Your task to perform on an android device: Open Android settings Image 0: 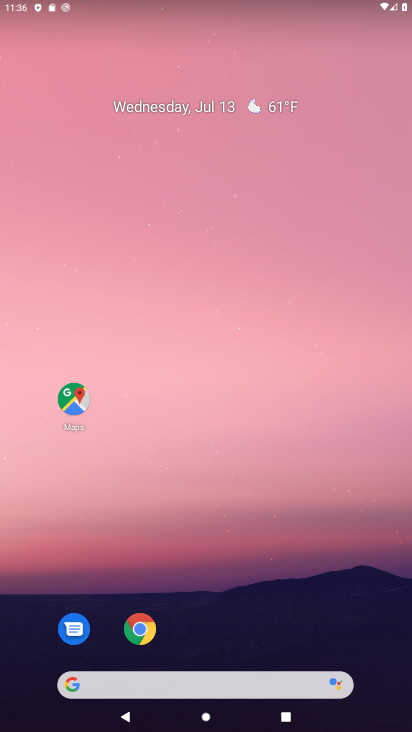
Step 0: drag from (203, 664) to (235, 7)
Your task to perform on an android device: Open Android settings Image 1: 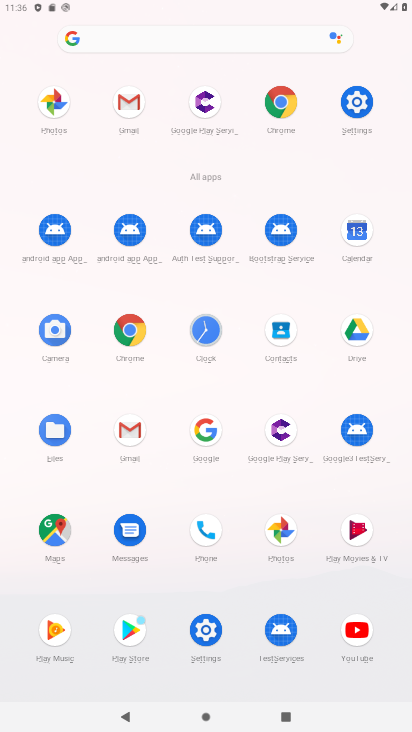
Step 1: click (344, 115)
Your task to perform on an android device: Open Android settings Image 2: 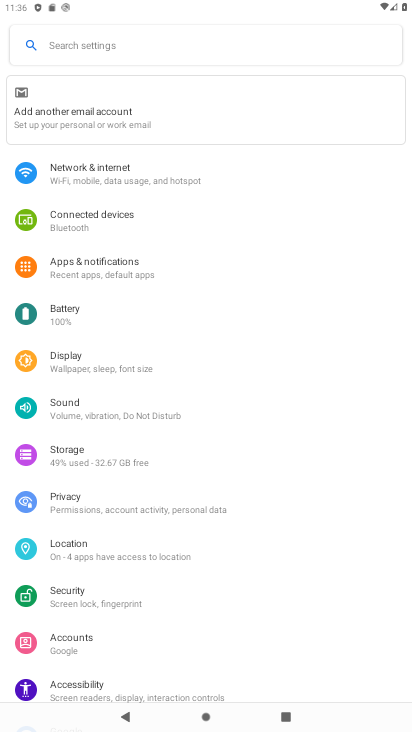
Step 2: task complete